Your task to perform on an android device: Open location settings Image 0: 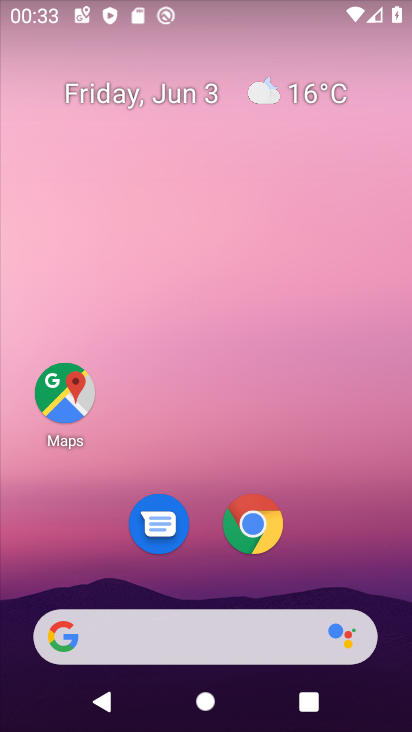
Step 0: drag from (216, 437) to (269, 0)
Your task to perform on an android device: Open location settings Image 1: 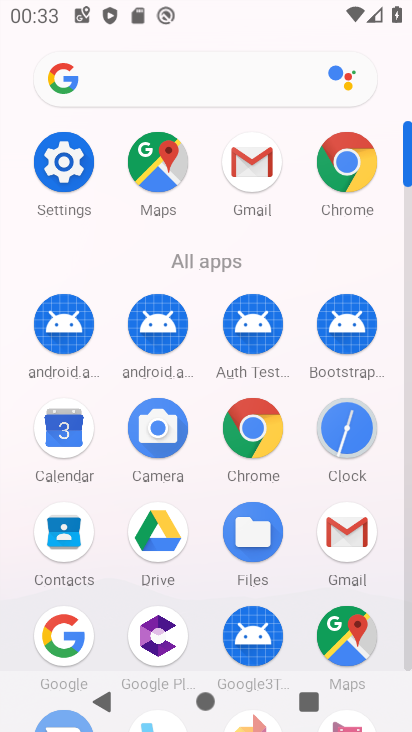
Step 1: click (70, 159)
Your task to perform on an android device: Open location settings Image 2: 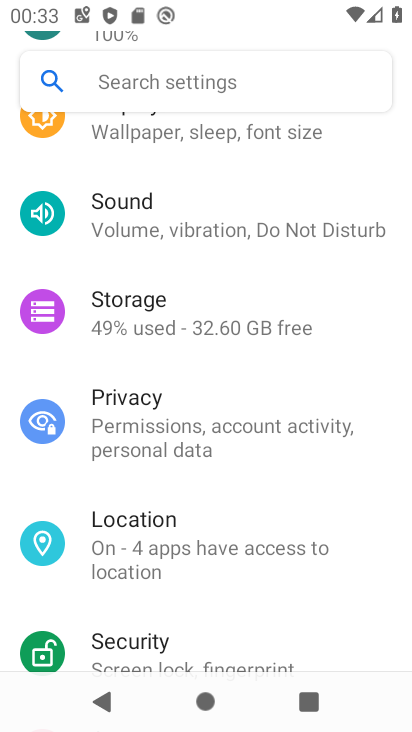
Step 2: click (207, 540)
Your task to perform on an android device: Open location settings Image 3: 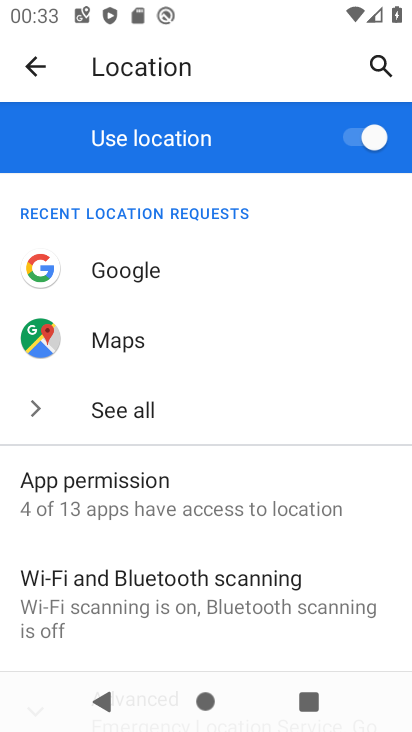
Step 3: task complete